Your task to perform on an android device: Open Google Maps Image 0: 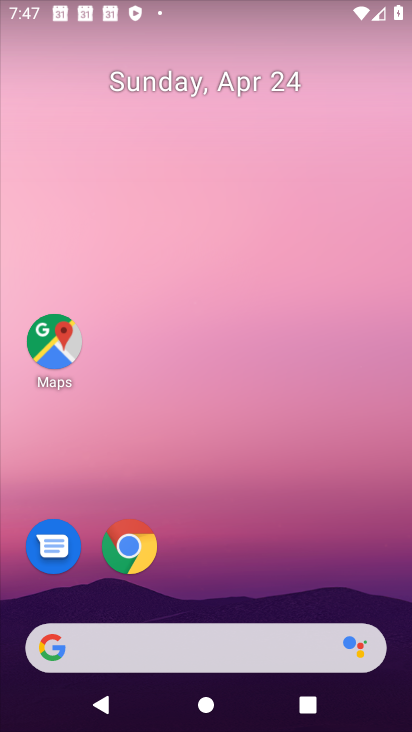
Step 0: click (62, 349)
Your task to perform on an android device: Open Google Maps Image 1: 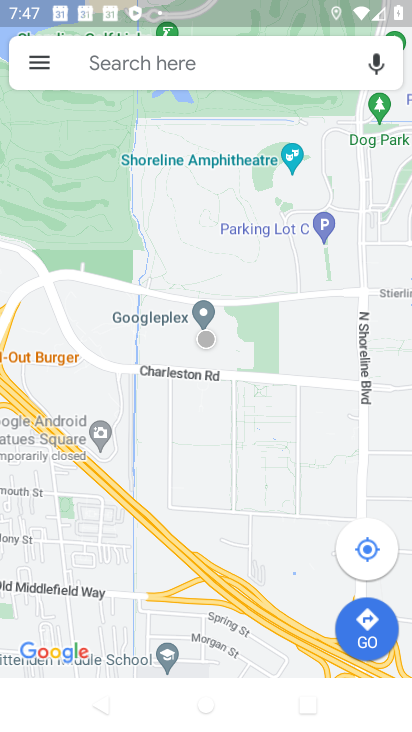
Step 1: task complete